Your task to perform on an android device: Open Google Chrome and open the bookmarks view Image 0: 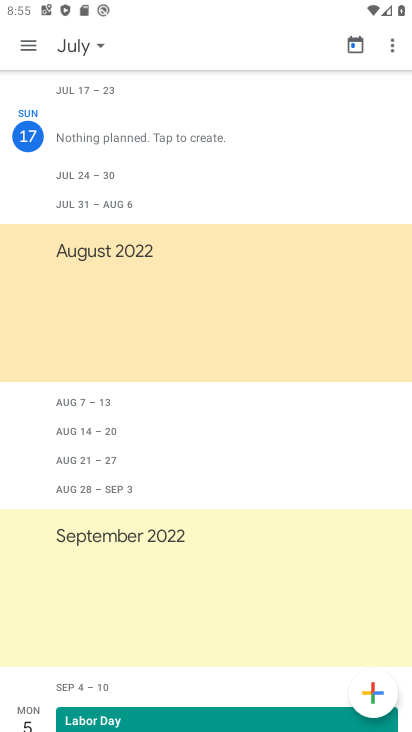
Step 0: press home button
Your task to perform on an android device: Open Google Chrome and open the bookmarks view Image 1: 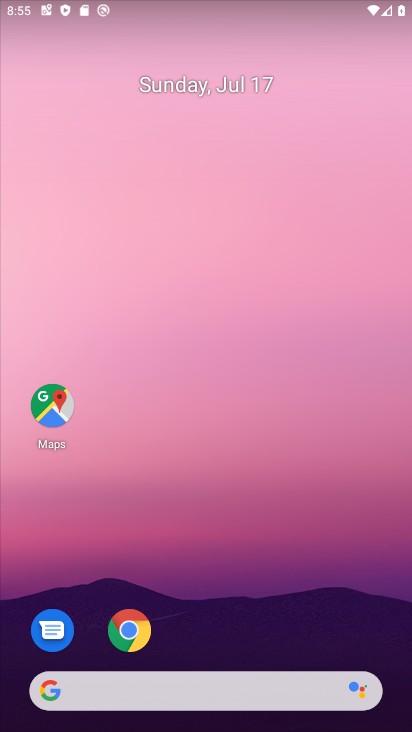
Step 1: drag from (191, 669) to (290, 14)
Your task to perform on an android device: Open Google Chrome and open the bookmarks view Image 2: 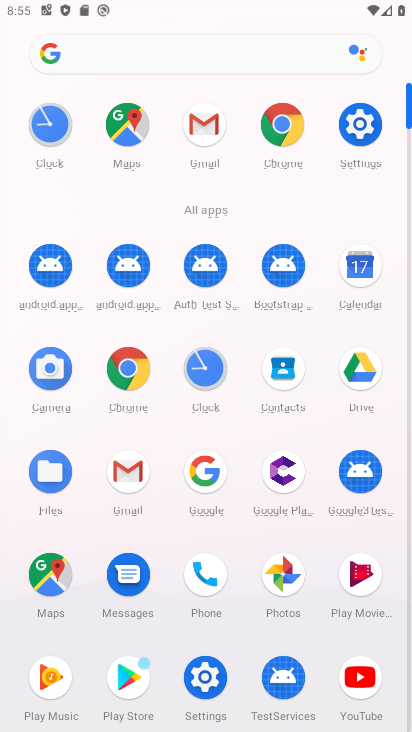
Step 2: click (136, 371)
Your task to perform on an android device: Open Google Chrome and open the bookmarks view Image 3: 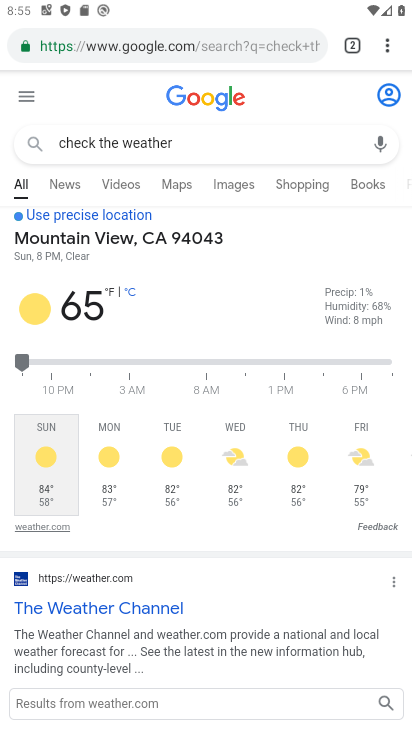
Step 3: task complete